Your task to perform on an android device: turn pop-ups off in chrome Image 0: 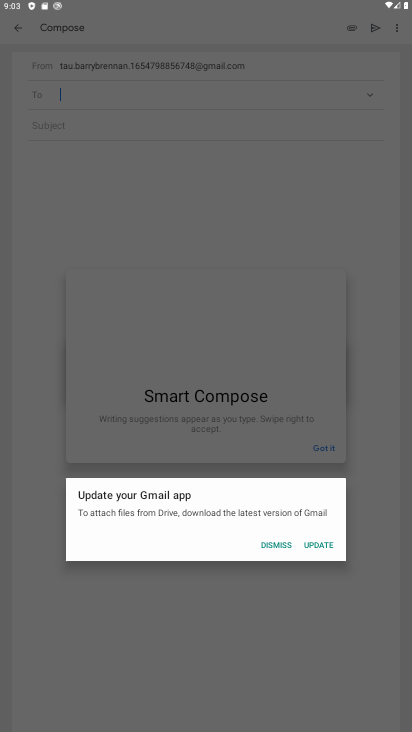
Step 0: press home button
Your task to perform on an android device: turn pop-ups off in chrome Image 1: 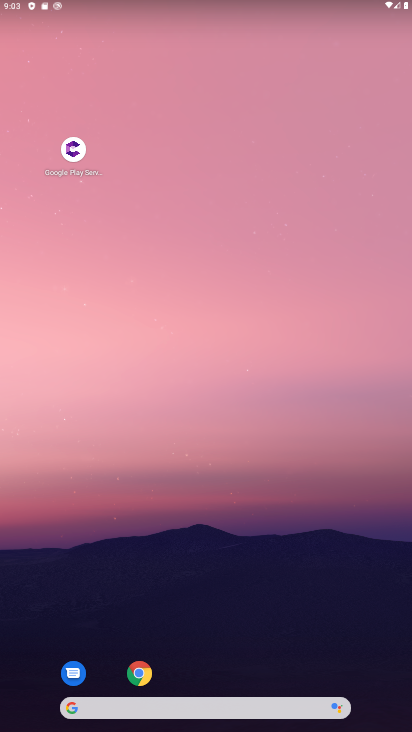
Step 1: drag from (387, 667) to (276, 168)
Your task to perform on an android device: turn pop-ups off in chrome Image 2: 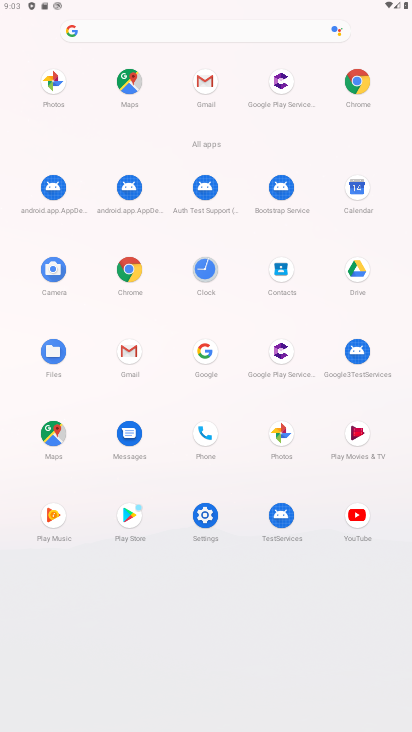
Step 2: click (359, 88)
Your task to perform on an android device: turn pop-ups off in chrome Image 3: 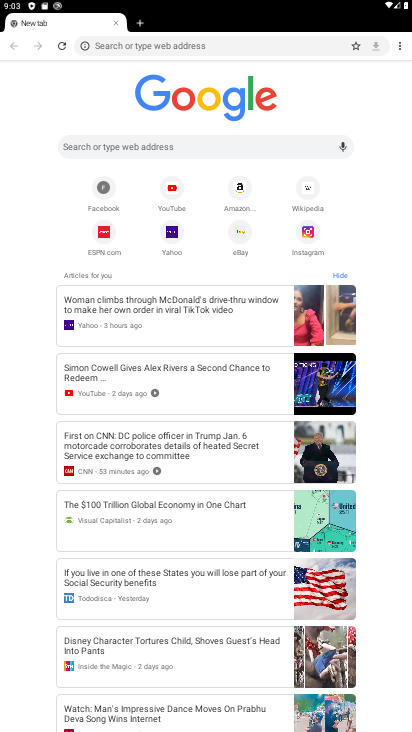
Step 3: click (398, 46)
Your task to perform on an android device: turn pop-ups off in chrome Image 4: 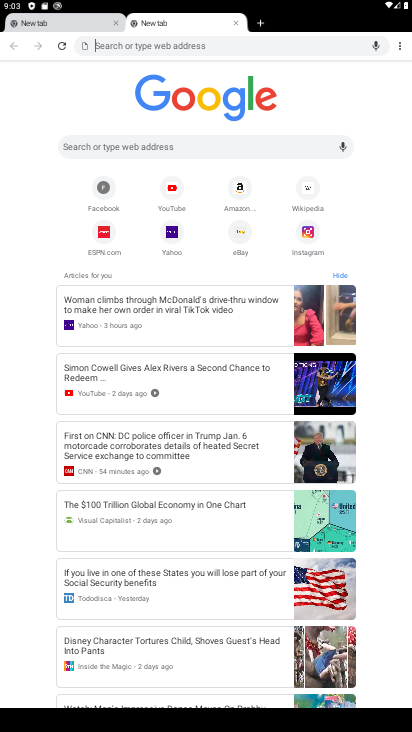
Step 4: click (399, 46)
Your task to perform on an android device: turn pop-ups off in chrome Image 5: 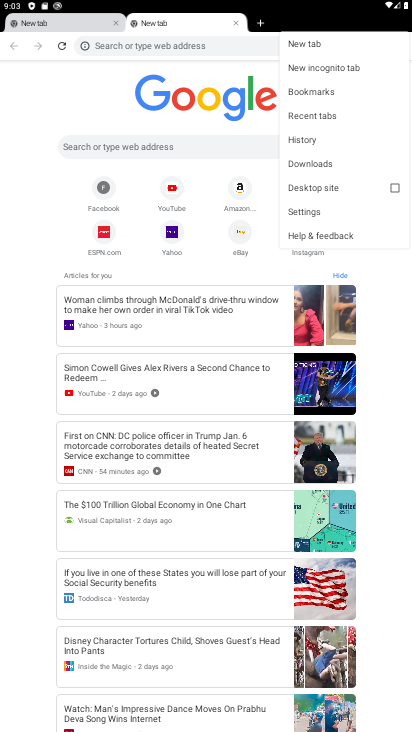
Step 5: click (333, 211)
Your task to perform on an android device: turn pop-ups off in chrome Image 6: 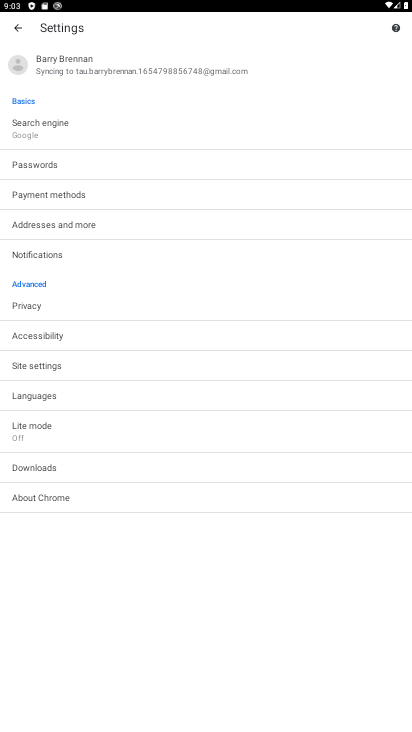
Step 6: click (62, 372)
Your task to perform on an android device: turn pop-ups off in chrome Image 7: 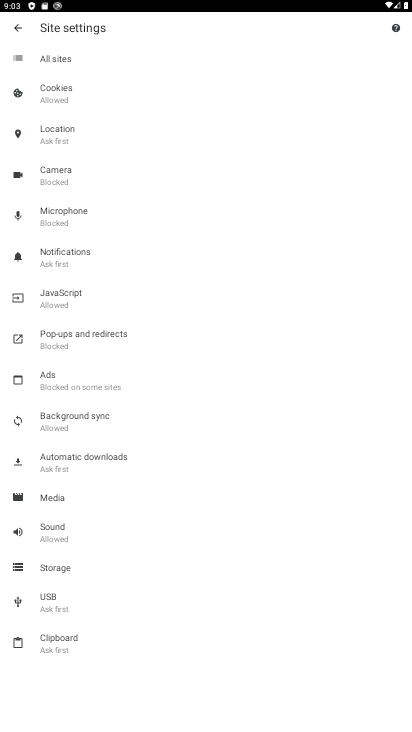
Step 7: click (81, 348)
Your task to perform on an android device: turn pop-ups off in chrome Image 8: 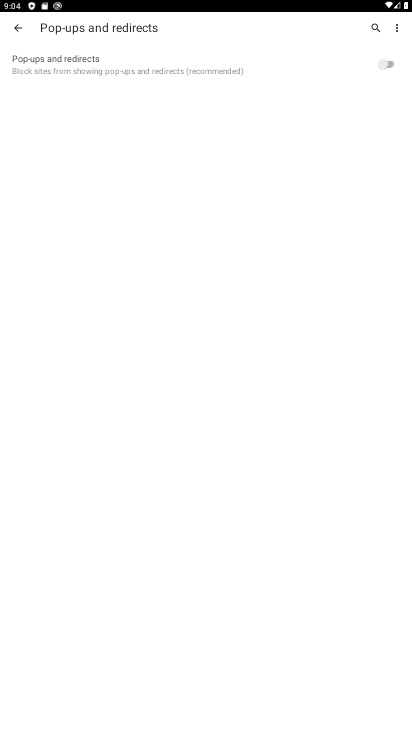
Step 8: task complete